Your task to perform on an android device: check google app version Image 0: 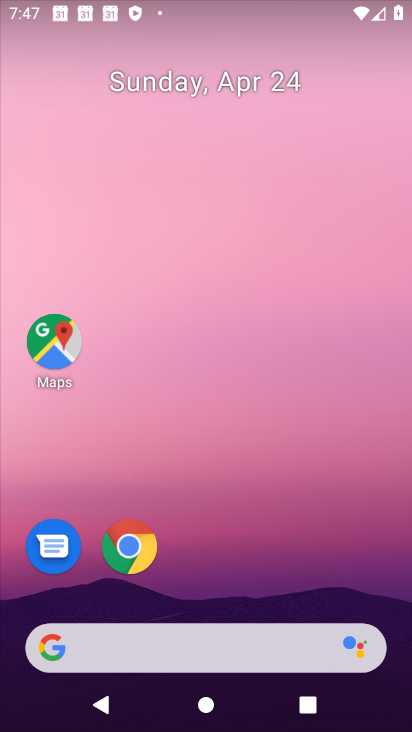
Step 0: click (67, 347)
Your task to perform on an android device: check google app version Image 1: 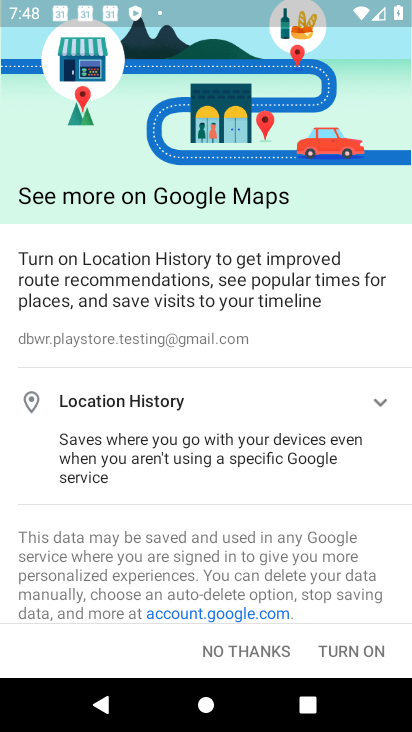
Step 1: press home button
Your task to perform on an android device: check google app version Image 2: 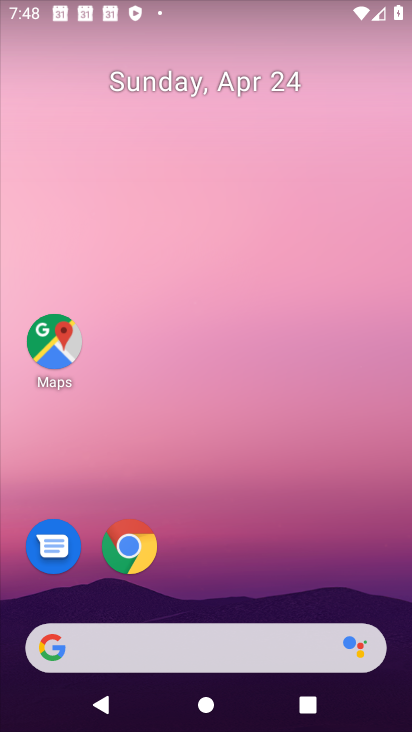
Step 2: click (152, 559)
Your task to perform on an android device: check google app version Image 3: 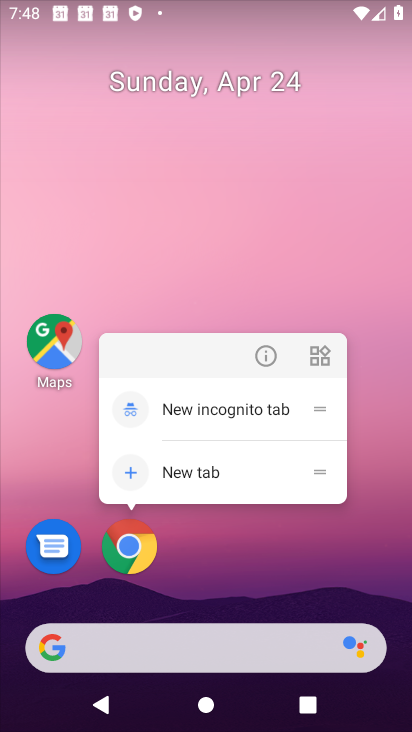
Step 3: click (271, 365)
Your task to perform on an android device: check google app version Image 4: 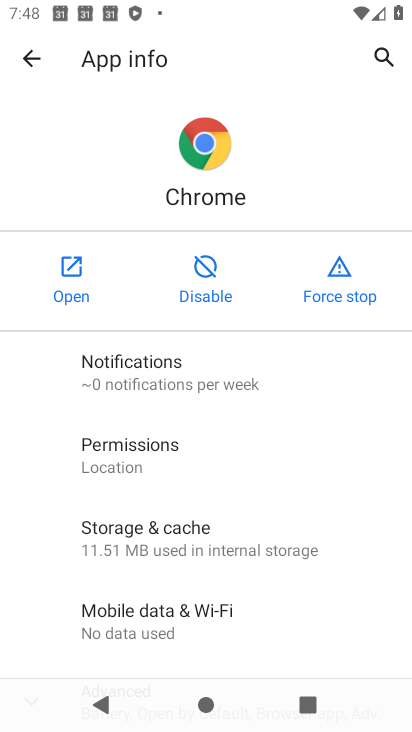
Step 4: drag from (313, 610) to (326, 253)
Your task to perform on an android device: check google app version Image 5: 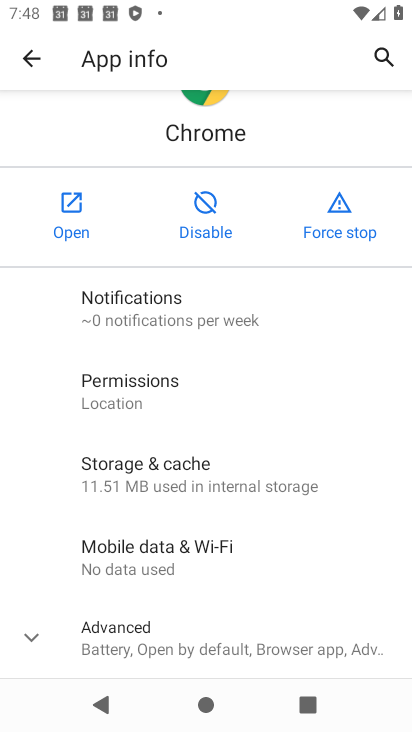
Step 5: click (150, 651)
Your task to perform on an android device: check google app version Image 6: 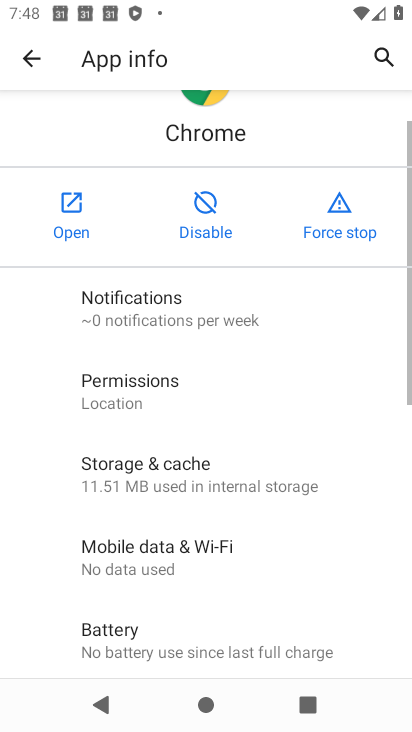
Step 6: task complete